Your task to perform on an android device: Go to privacy settings Image 0: 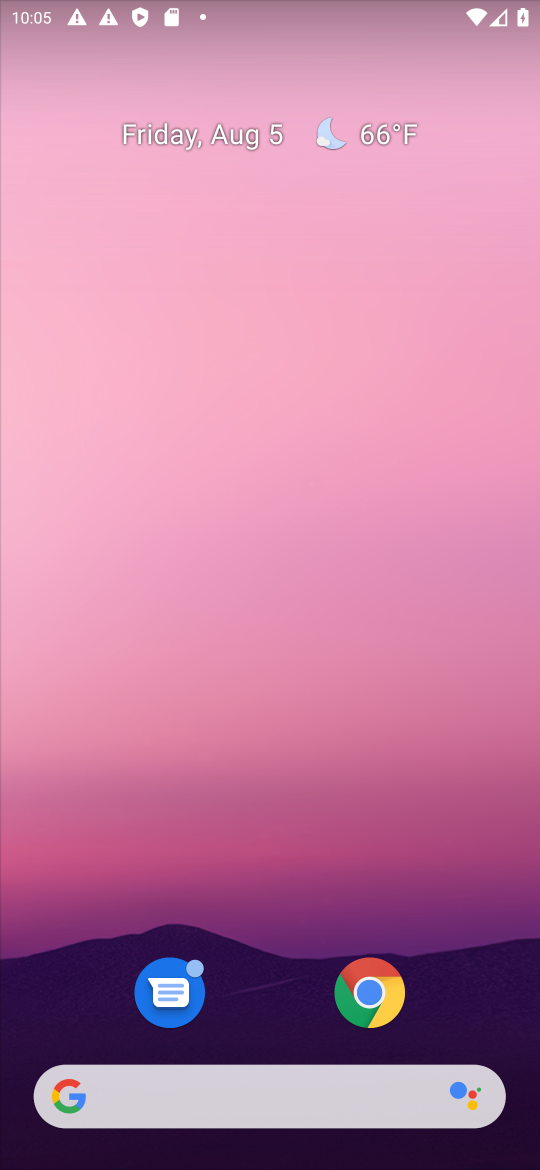
Step 0: drag from (273, 914) to (341, 396)
Your task to perform on an android device: Go to privacy settings Image 1: 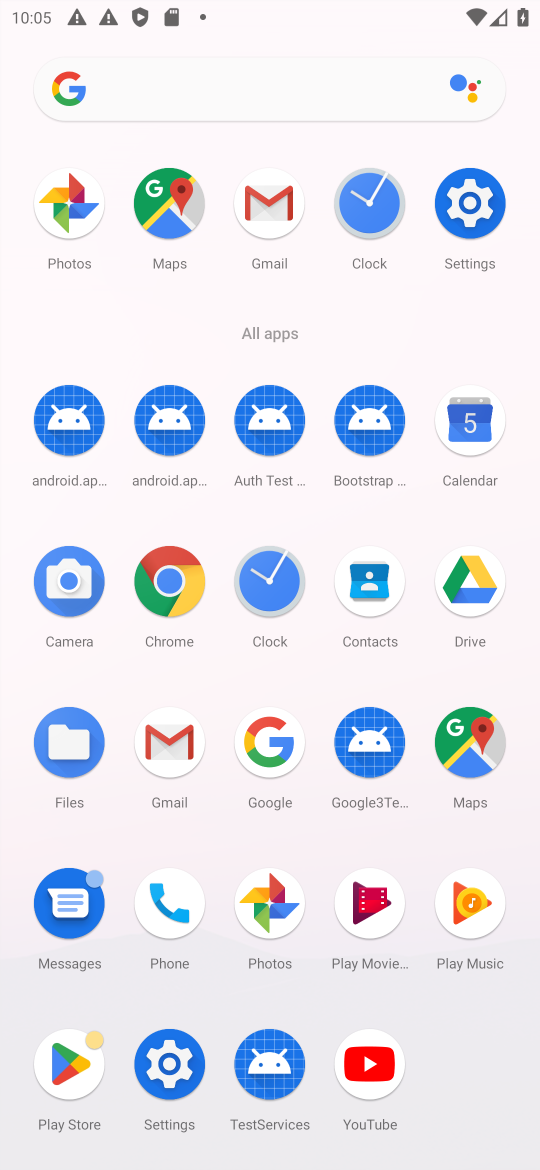
Step 1: click (437, 223)
Your task to perform on an android device: Go to privacy settings Image 2: 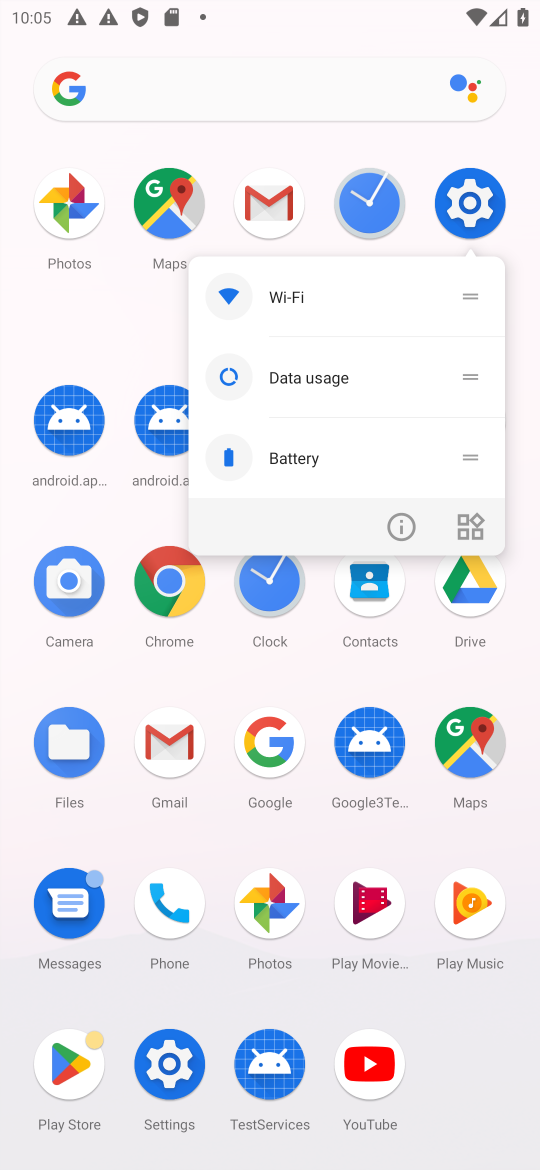
Step 2: click (477, 217)
Your task to perform on an android device: Go to privacy settings Image 3: 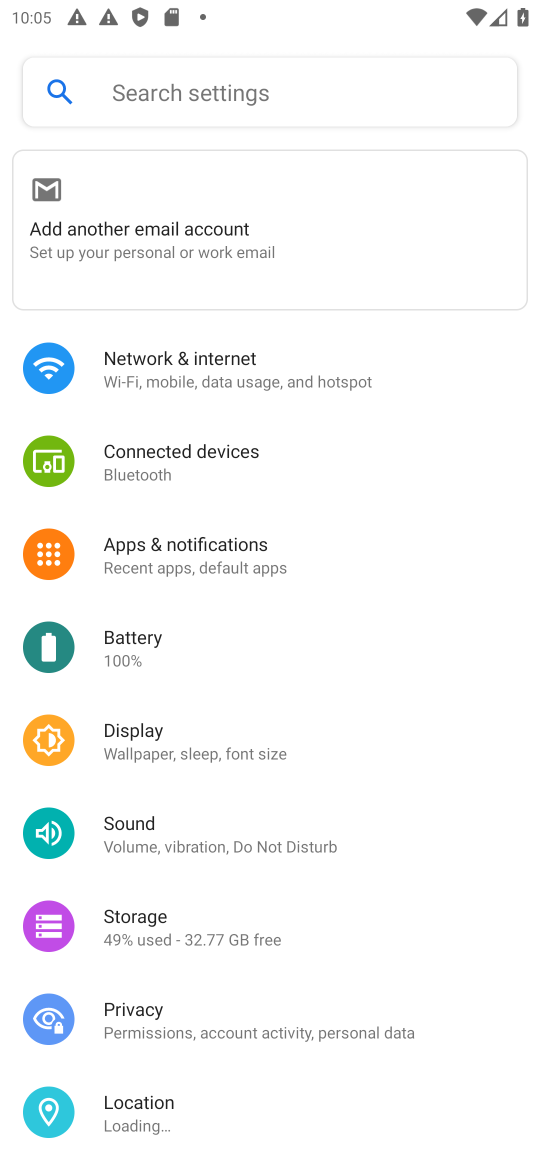
Step 3: click (206, 1039)
Your task to perform on an android device: Go to privacy settings Image 4: 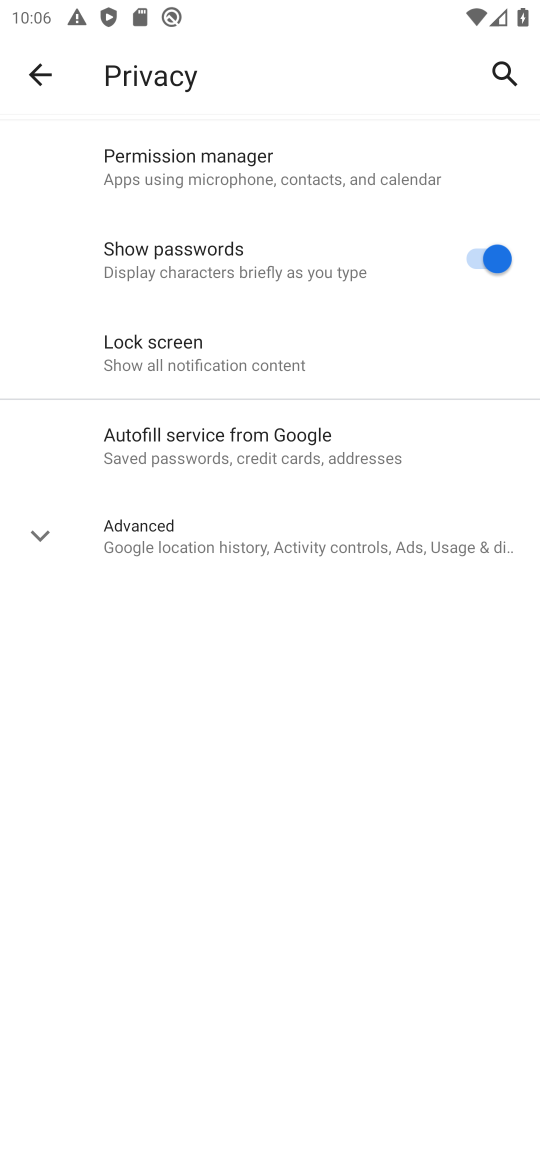
Step 4: task complete